Your task to perform on an android device: Open the web browser Image 0: 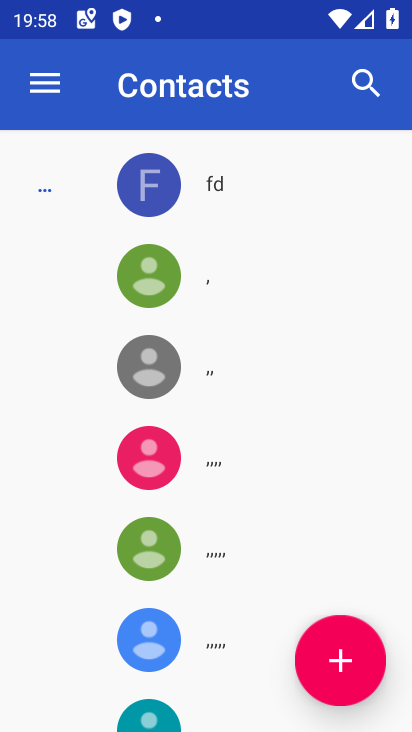
Step 0: press home button
Your task to perform on an android device: Open the web browser Image 1: 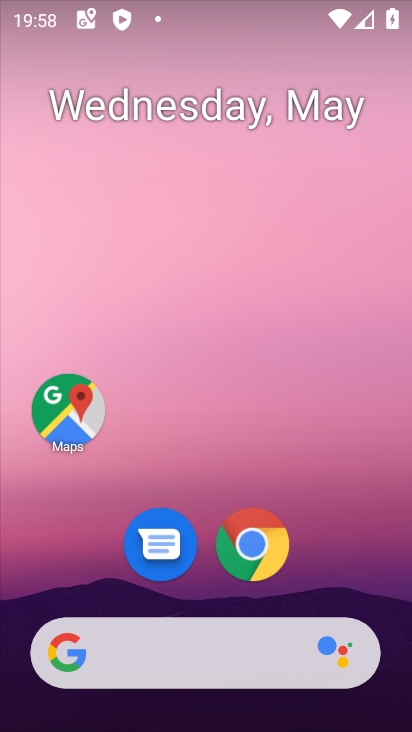
Step 1: click (275, 628)
Your task to perform on an android device: Open the web browser Image 2: 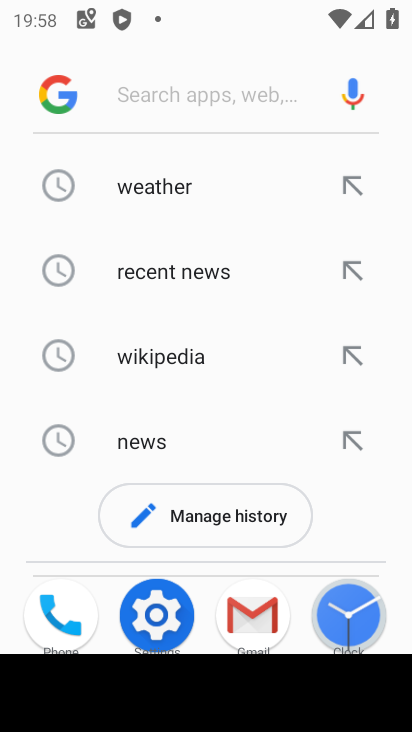
Step 2: task complete